Your task to perform on an android device: Show the shopping cart on bestbuy. Search for "acer nitro" on bestbuy, select the first entry, and add it to the cart. Image 0: 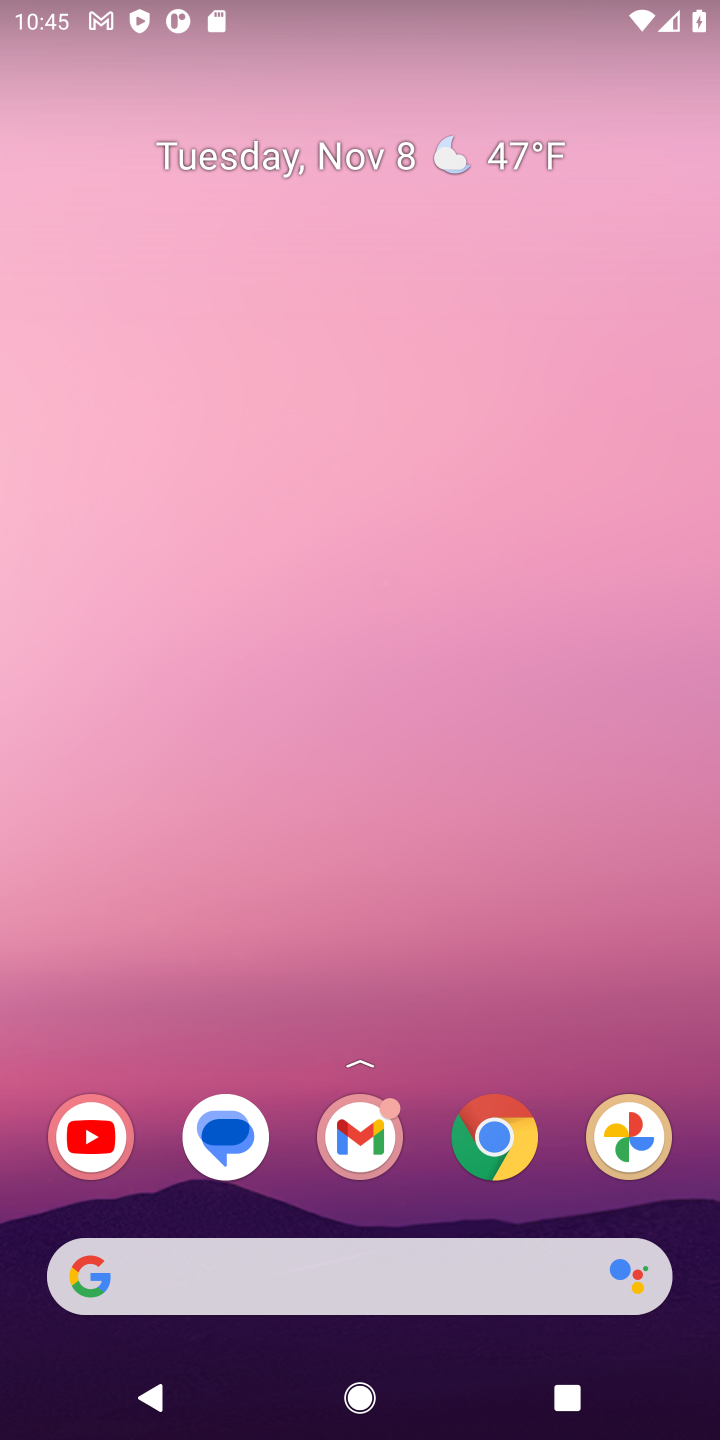
Step 0: click (494, 1141)
Your task to perform on an android device: Show the shopping cart on bestbuy. Search for "acer nitro" on bestbuy, select the first entry, and add it to the cart. Image 1: 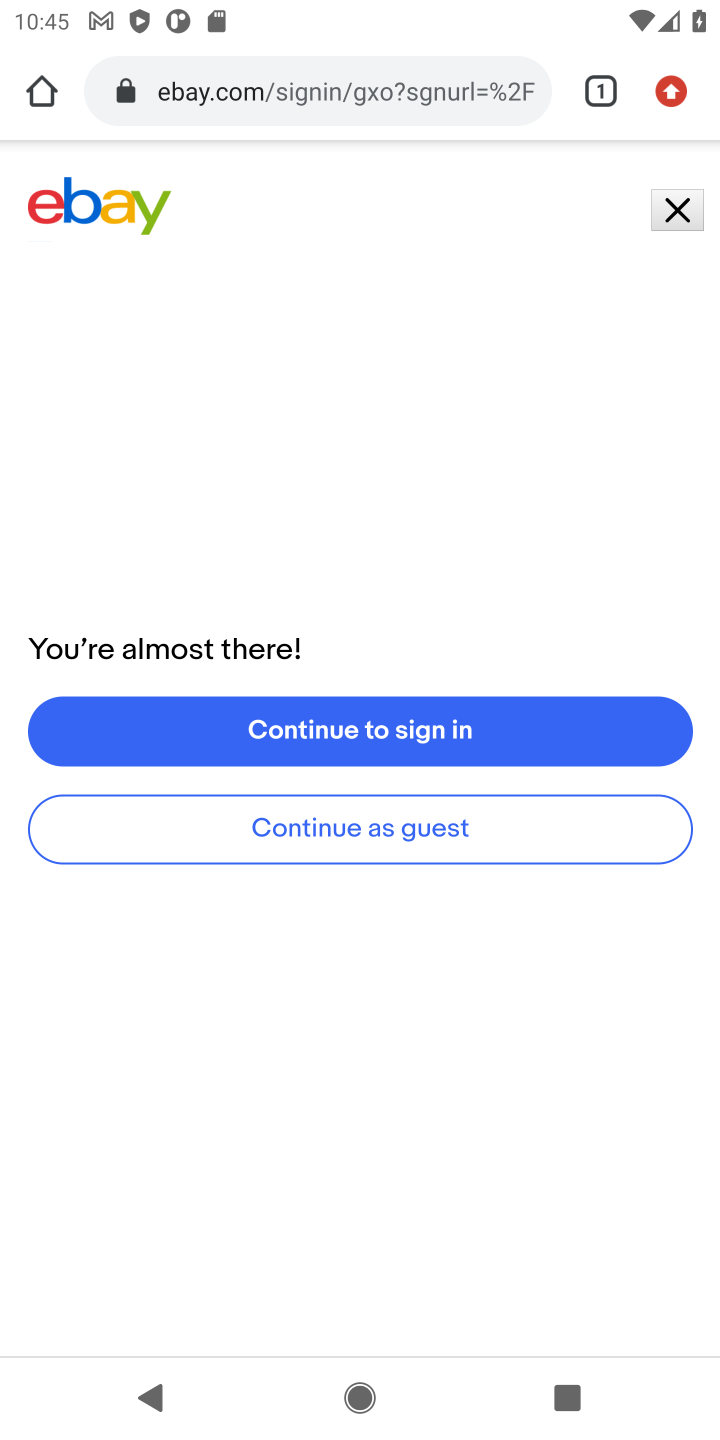
Step 1: click (306, 98)
Your task to perform on an android device: Show the shopping cart on bestbuy. Search for "acer nitro" on bestbuy, select the first entry, and add it to the cart. Image 2: 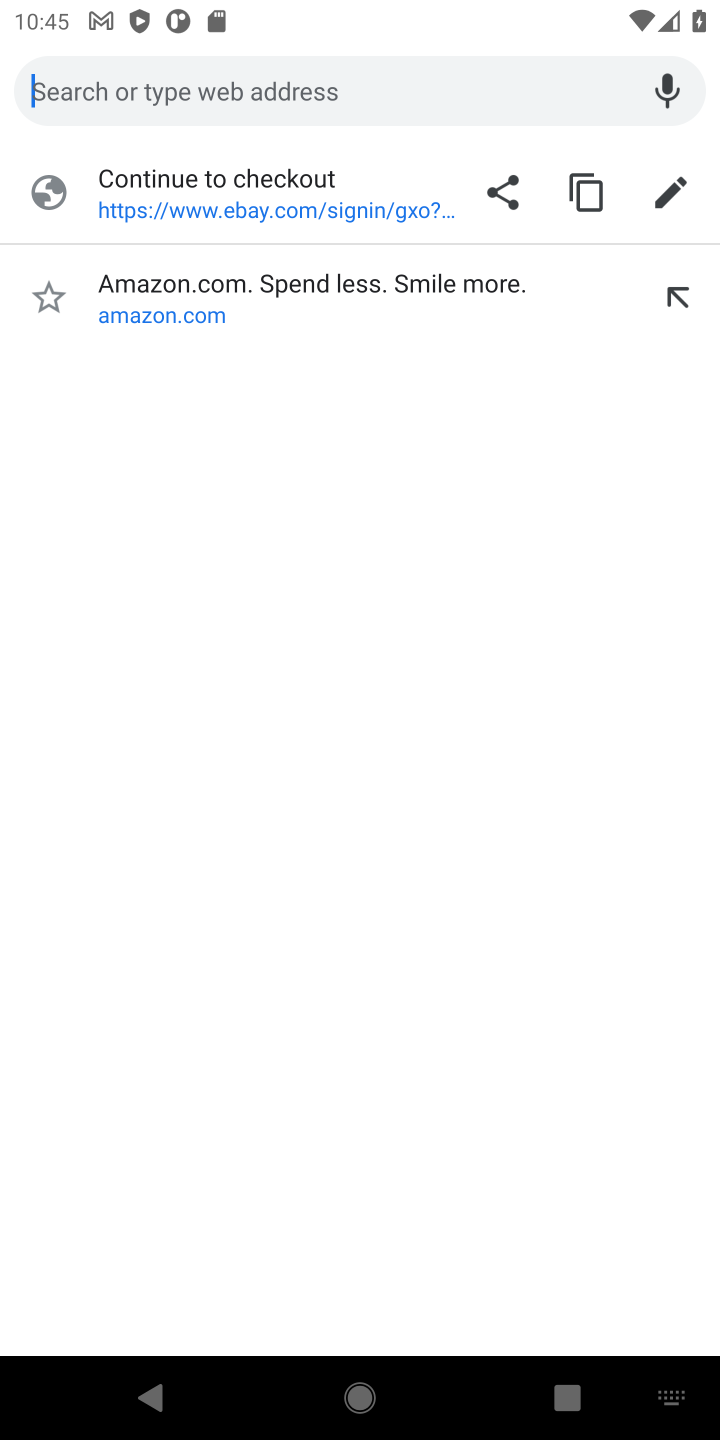
Step 2: type "bestbuy"
Your task to perform on an android device: Show the shopping cart on bestbuy. Search for "acer nitro" on bestbuy, select the first entry, and add it to the cart. Image 3: 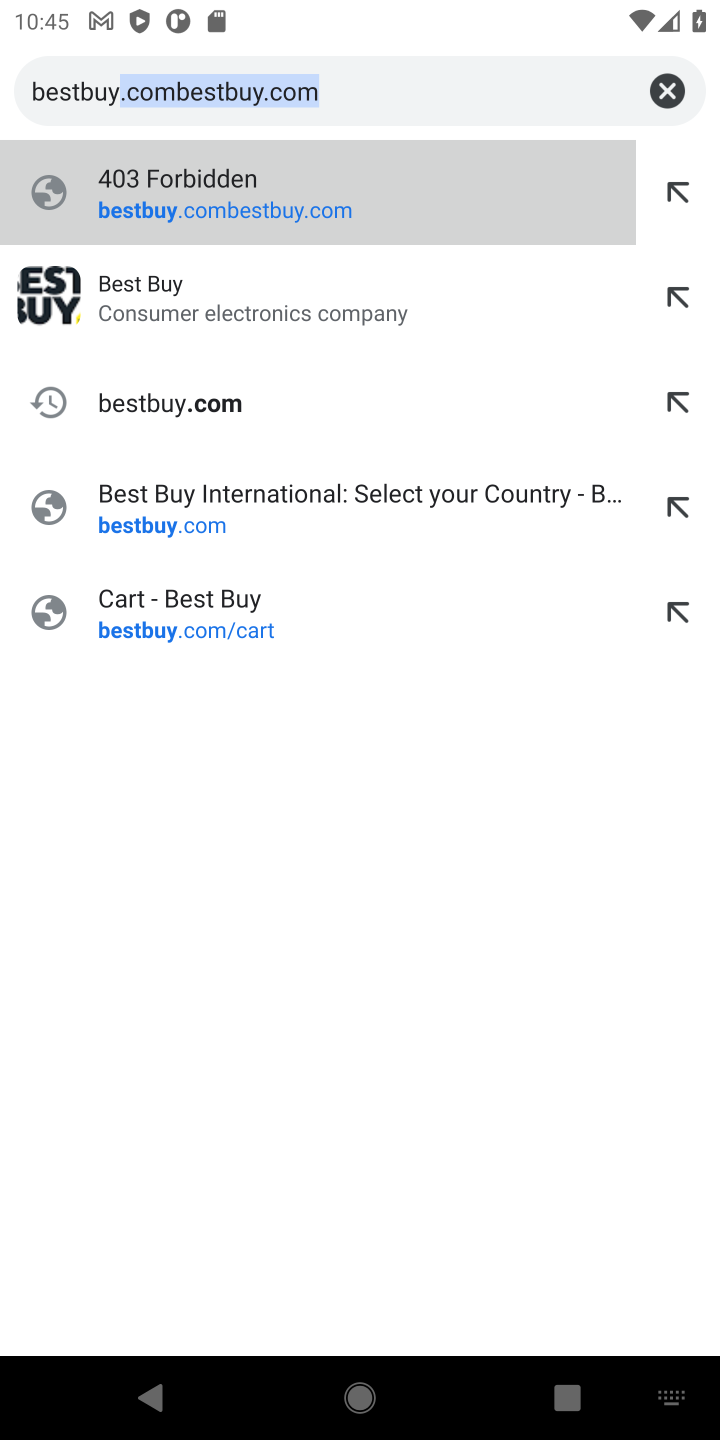
Step 3: click (231, 312)
Your task to perform on an android device: Show the shopping cart on bestbuy. Search for "acer nitro" on bestbuy, select the first entry, and add it to the cart. Image 4: 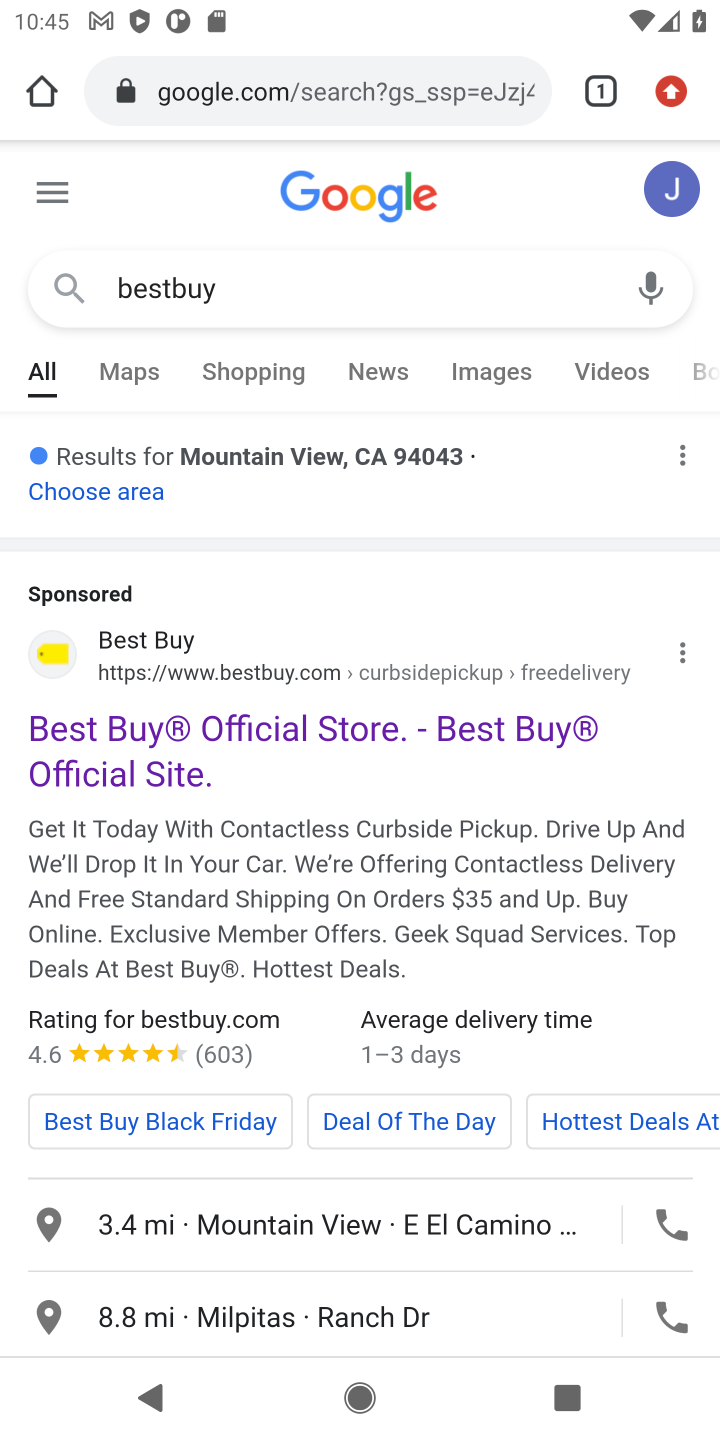
Step 4: drag from (360, 1044) to (424, 332)
Your task to perform on an android device: Show the shopping cart on bestbuy. Search for "acer nitro" on bestbuy, select the first entry, and add it to the cart. Image 5: 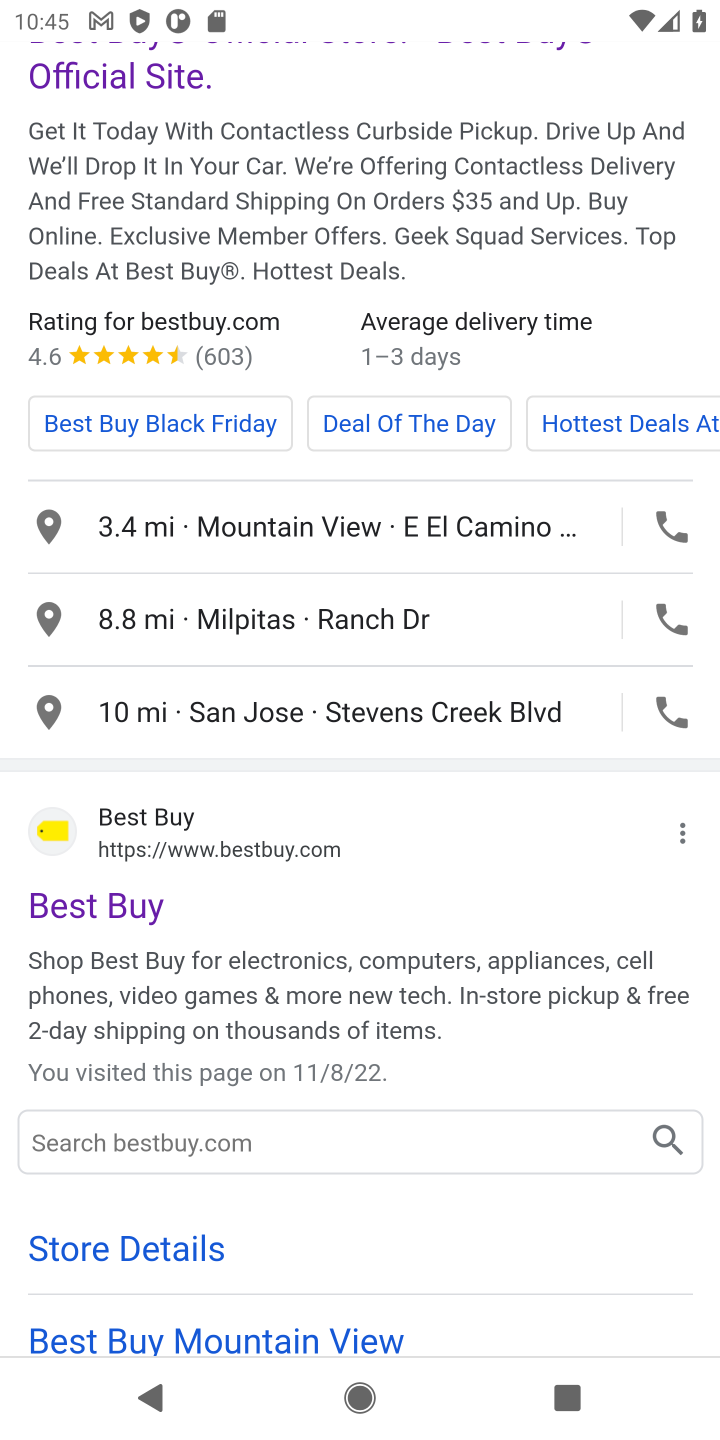
Step 5: click (138, 916)
Your task to perform on an android device: Show the shopping cart on bestbuy. Search for "acer nitro" on bestbuy, select the first entry, and add it to the cart. Image 6: 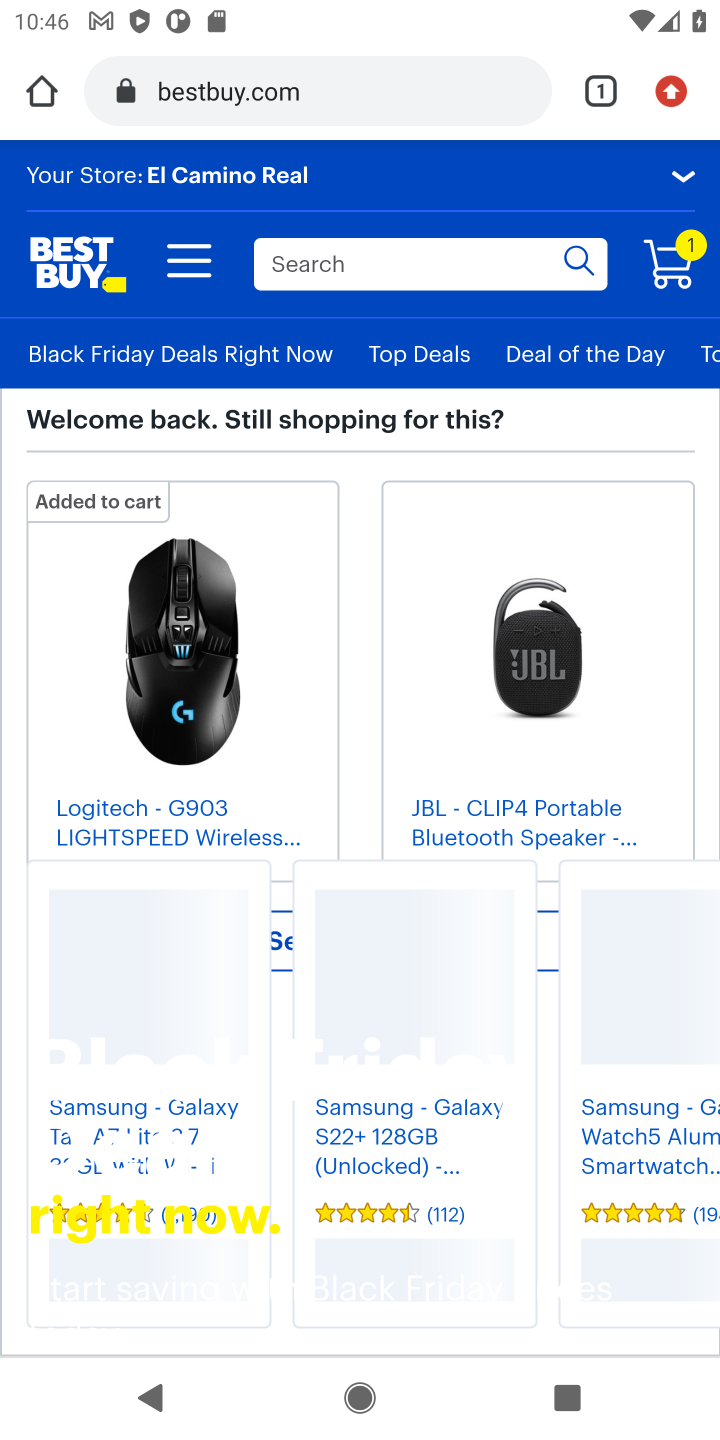
Step 6: click (672, 272)
Your task to perform on an android device: Show the shopping cart on bestbuy. Search for "acer nitro" on bestbuy, select the first entry, and add it to the cart. Image 7: 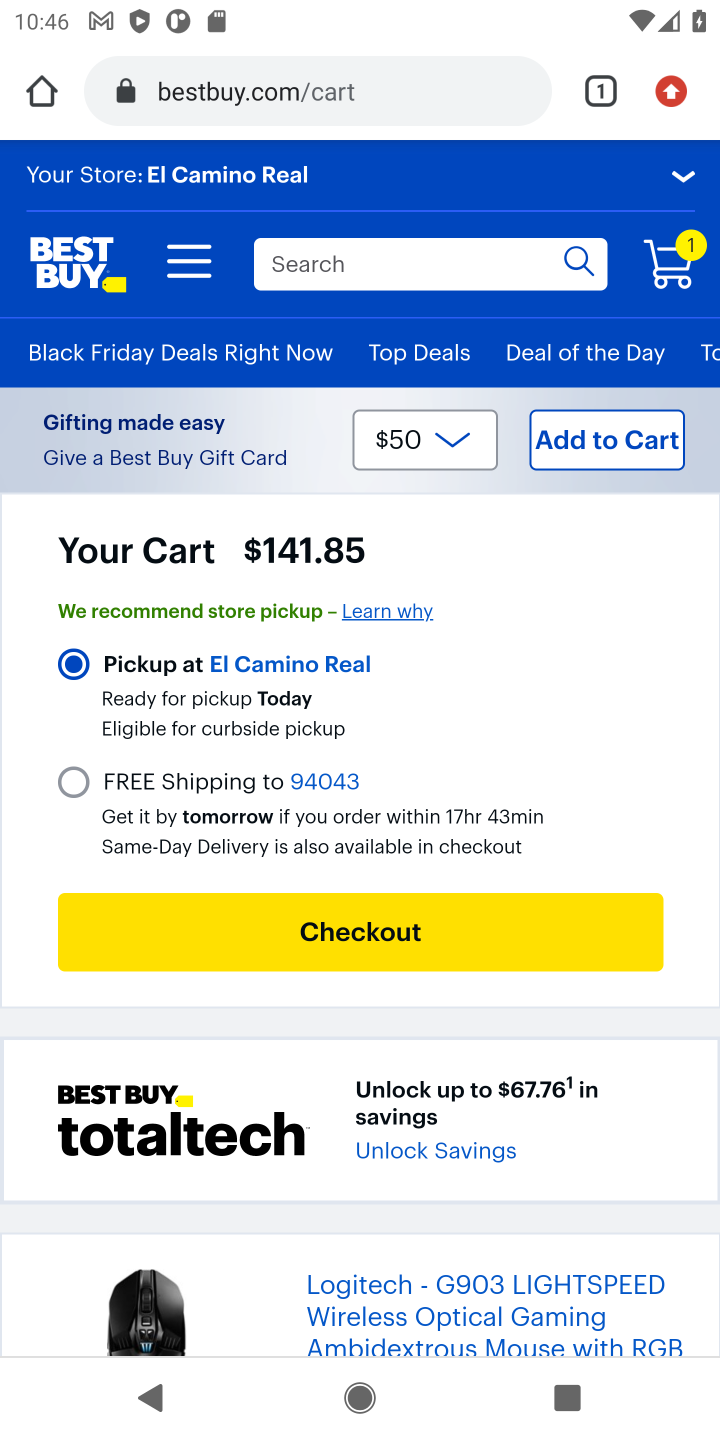
Step 7: click (391, 267)
Your task to perform on an android device: Show the shopping cart on bestbuy. Search for "acer nitro" on bestbuy, select the first entry, and add it to the cart. Image 8: 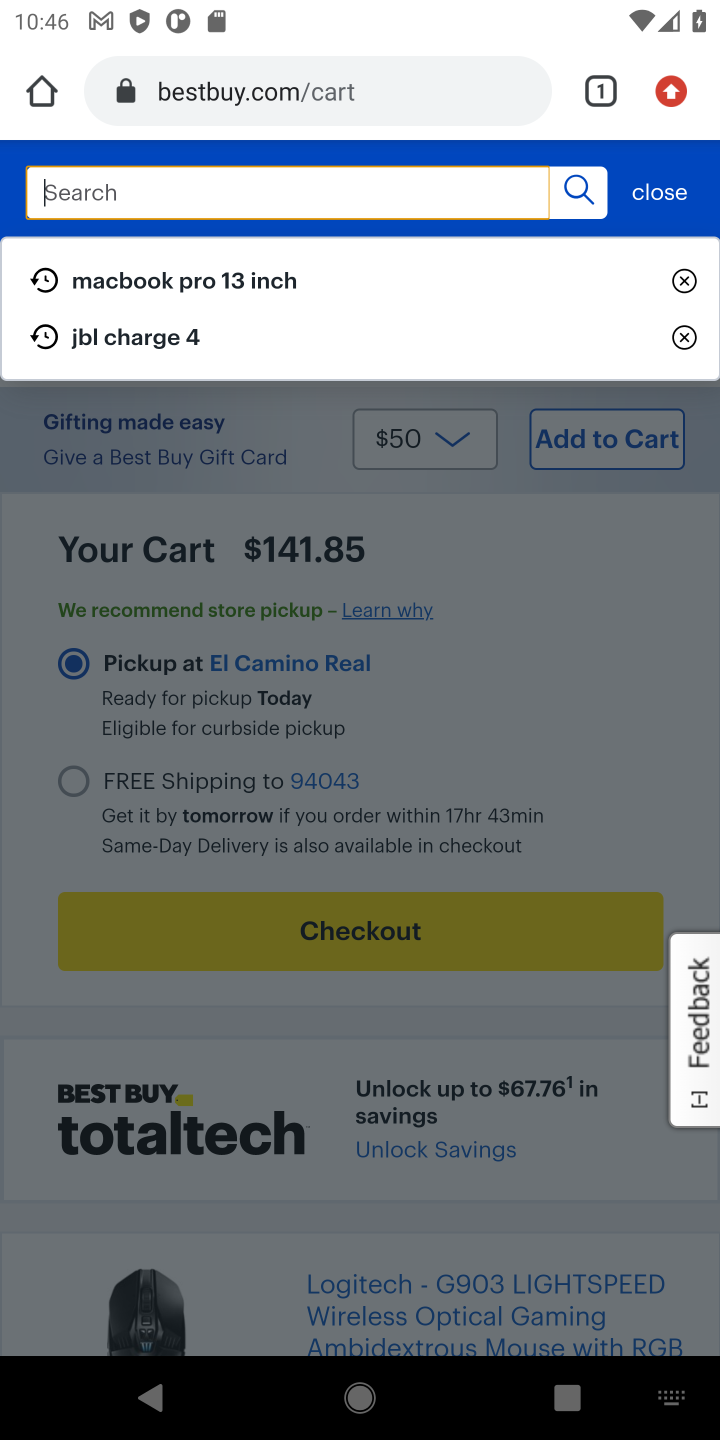
Step 8: type "acer nitro"
Your task to perform on an android device: Show the shopping cart on bestbuy. Search for "acer nitro" on bestbuy, select the first entry, and add it to the cart. Image 9: 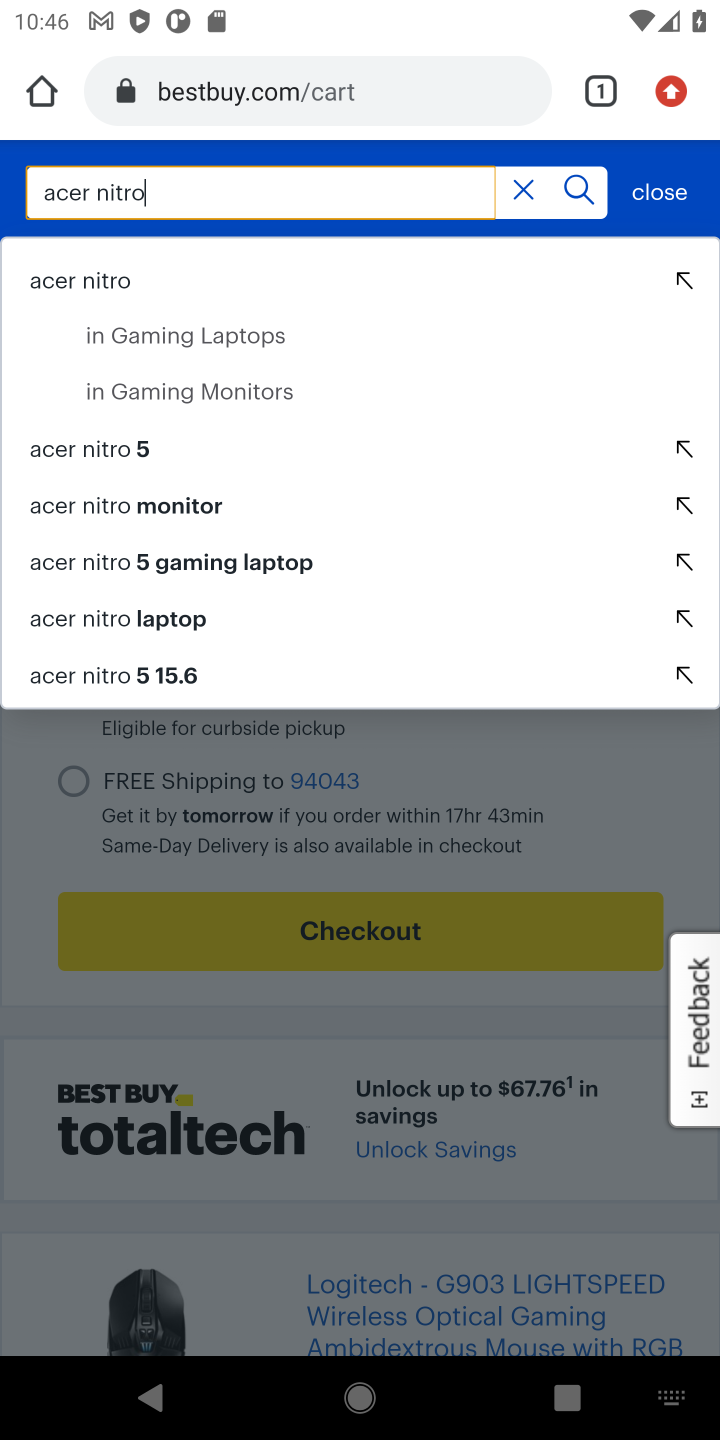
Step 9: click (114, 283)
Your task to perform on an android device: Show the shopping cart on bestbuy. Search for "acer nitro" on bestbuy, select the first entry, and add it to the cart. Image 10: 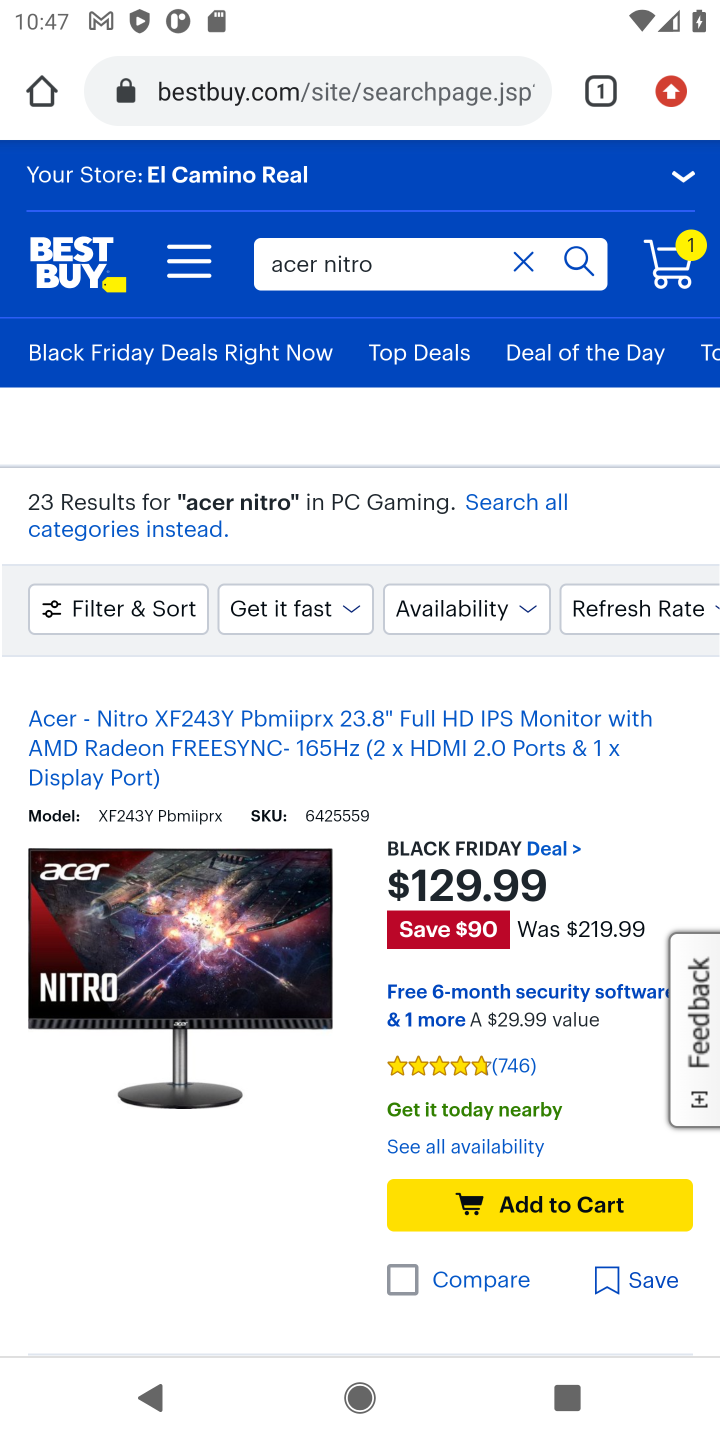
Step 10: click (532, 1205)
Your task to perform on an android device: Show the shopping cart on bestbuy. Search for "acer nitro" on bestbuy, select the first entry, and add it to the cart. Image 11: 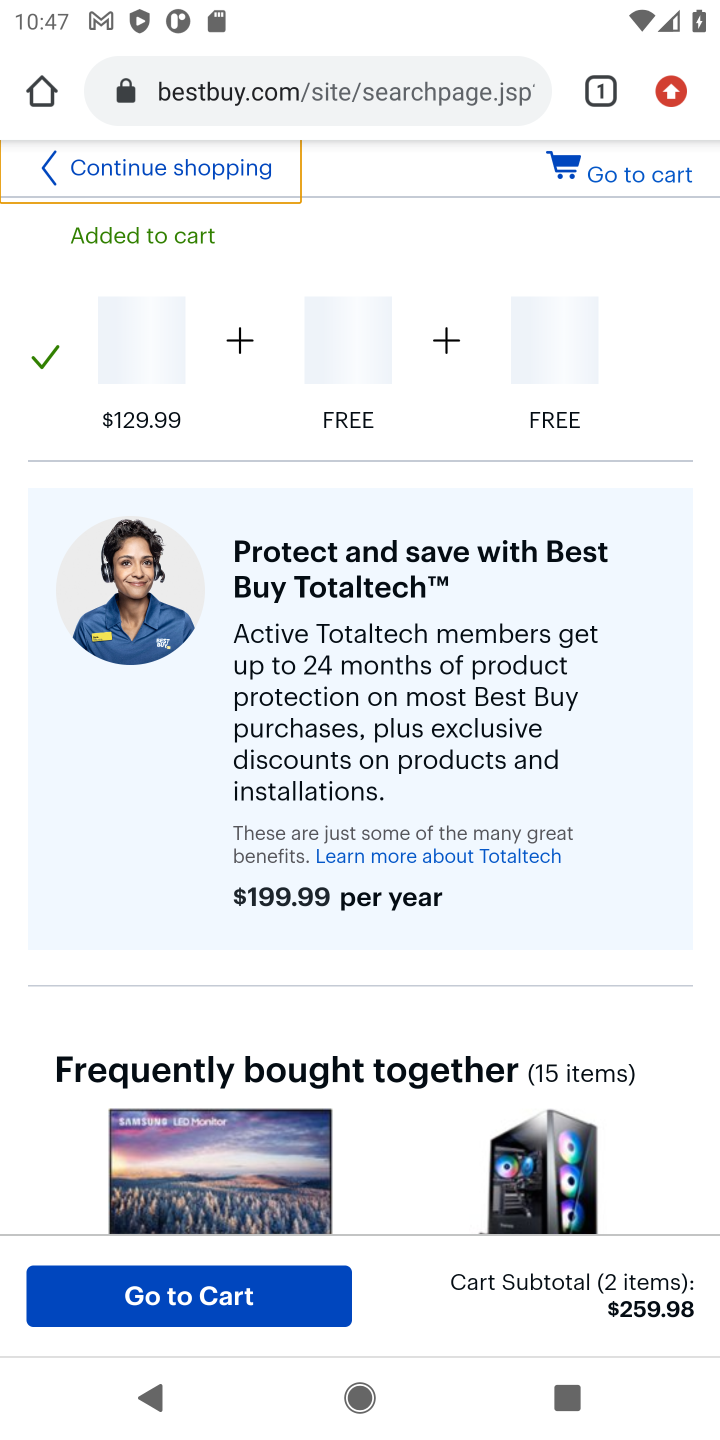
Step 11: click (213, 1298)
Your task to perform on an android device: Show the shopping cart on bestbuy. Search for "acer nitro" on bestbuy, select the first entry, and add it to the cart. Image 12: 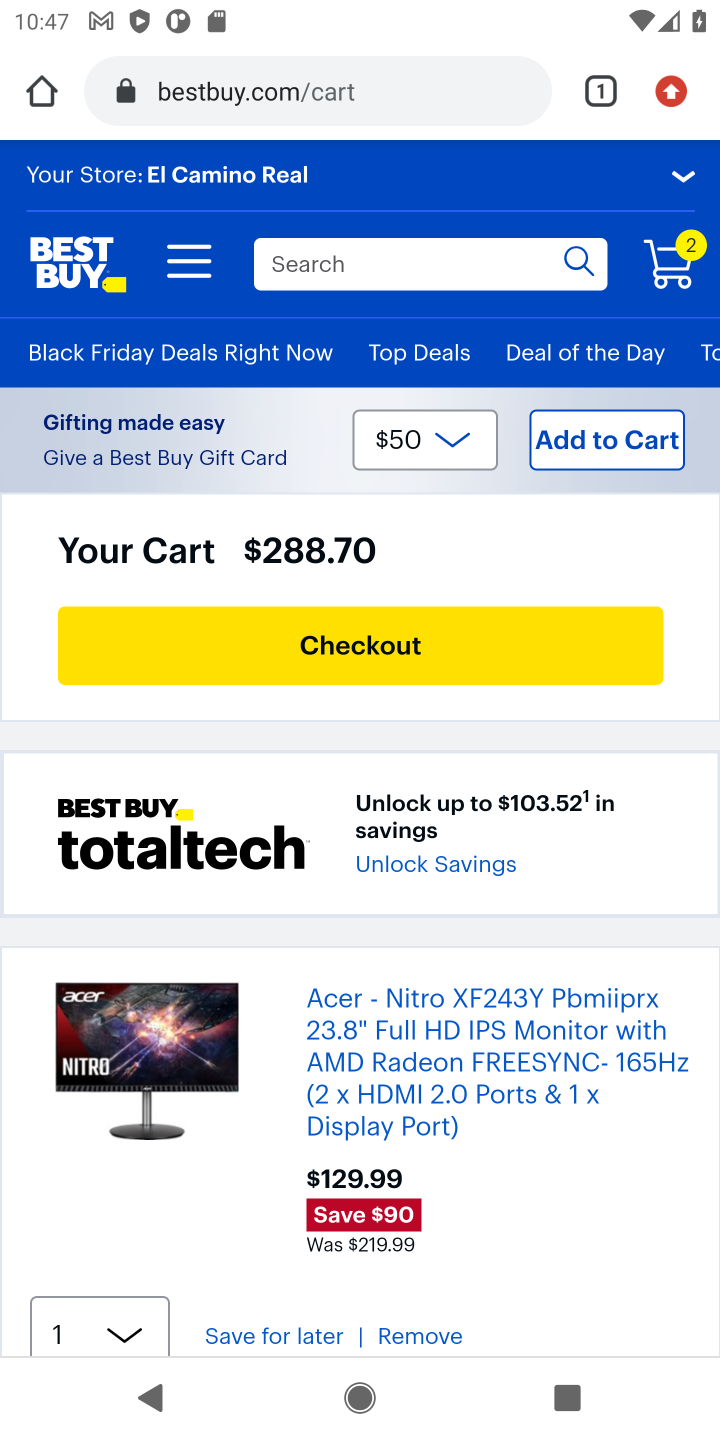
Step 12: task complete